Your task to perform on an android device: Go to ESPN.com Image 0: 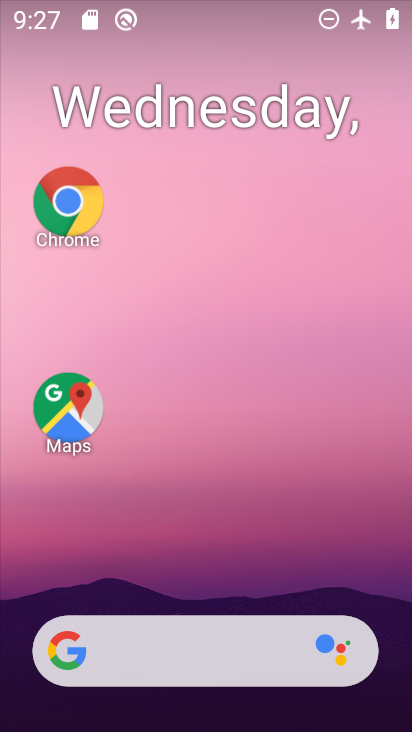
Step 0: drag from (185, 603) to (187, 20)
Your task to perform on an android device: Go to ESPN.com Image 1: 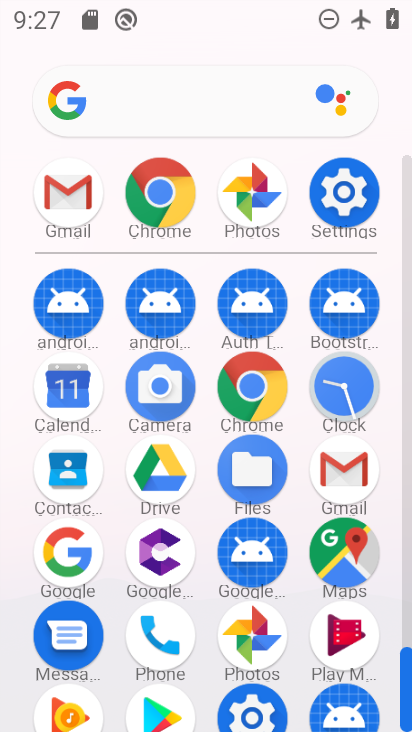
Step 1: click (242, 400)
Your task to perform on an android device: Go to ESPN.com Image 2: 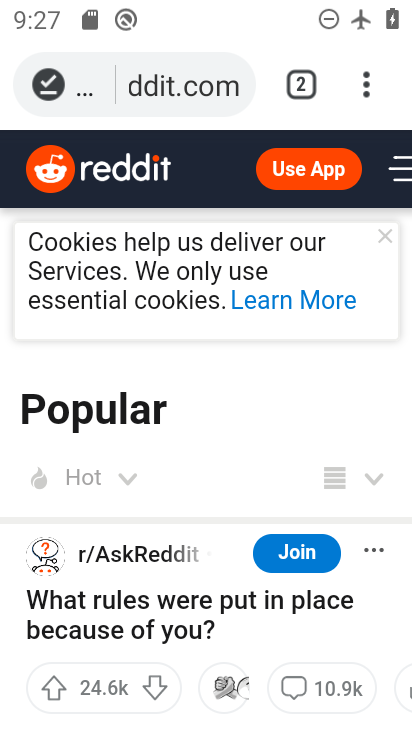
Step 2: click (289, 65)
Your task to perform on an android device: Go to ESPN.com Image 3: 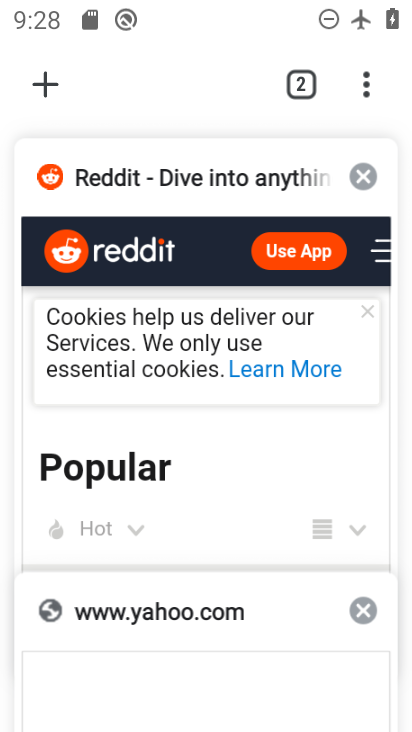
Step 3: click (50, 73)
Your task to perform on an android device: Go to ESPN.com Image 4: 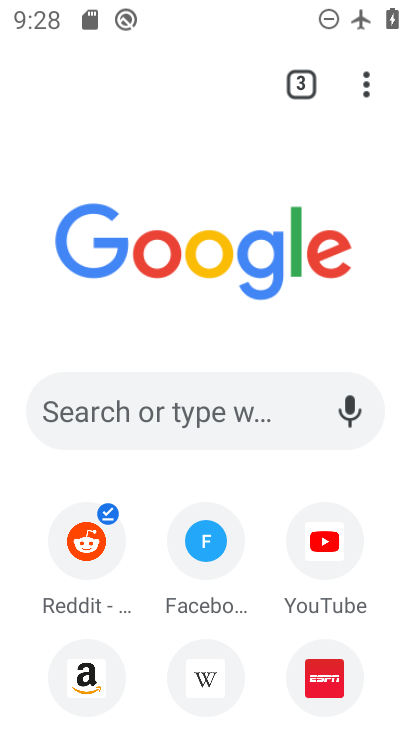
Step 4: click (326, 662)
Your task to perform on an android device: Go to ESPN.com Image 5: 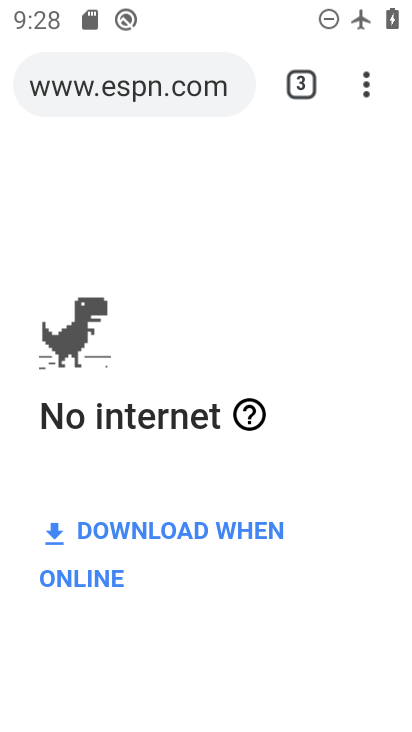
Step 5: task complete